Your task to perform on an android device: find photos in the google photos app Image 0: 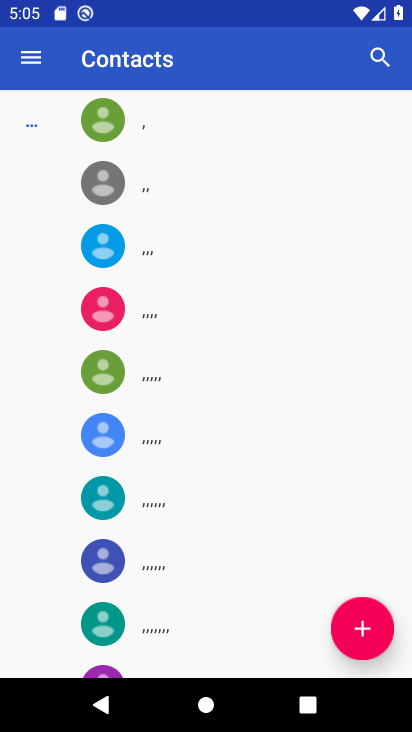
Step 0: press back button
Your task to perform on an android device: find photos in the google photos app Image 1: 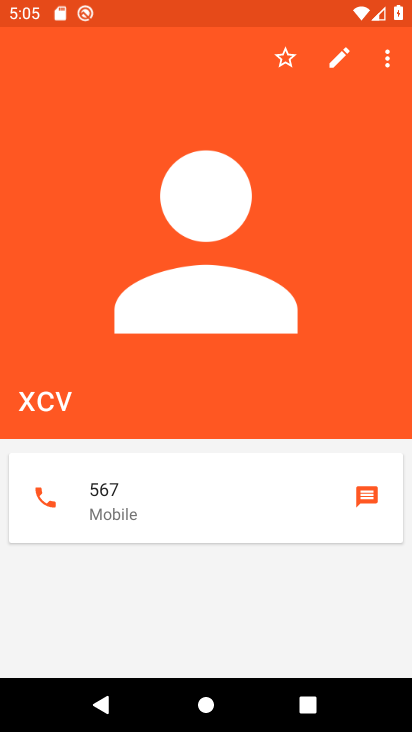
Step 1: press back button
Your task to perform on an android device: find photos in the google photos app Image 2: 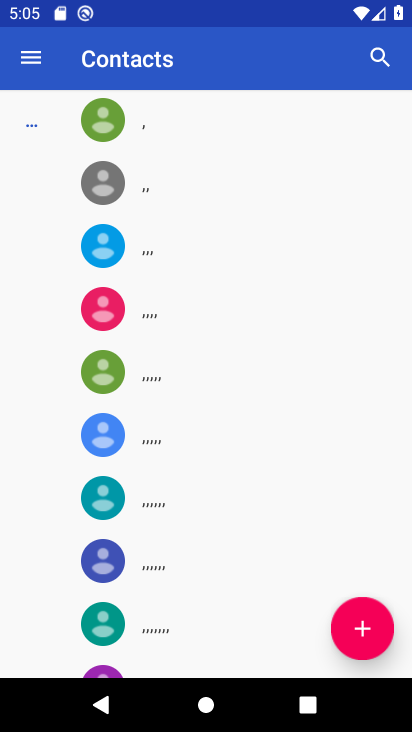
Step 2: press home button
Your task to perform on an android device: find photos in the google photos app Image 3: 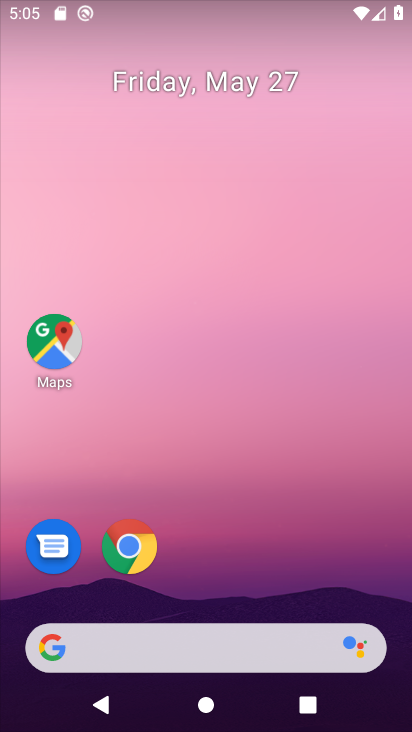
Step 3: drag from (256, 547) to (230, 72)
Your task to perform on an android device: find photos in the google photos app Image 4: 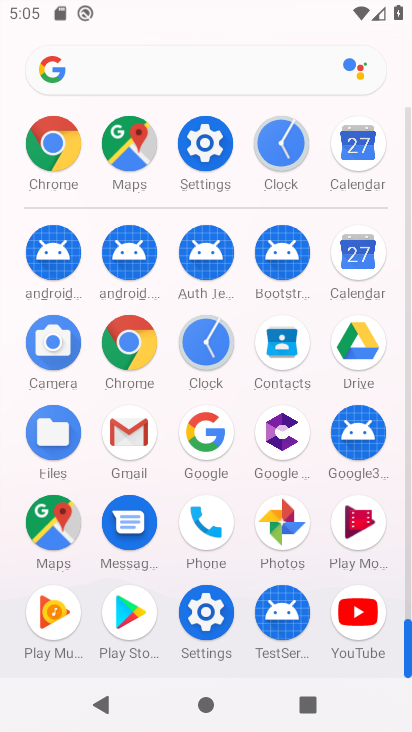
Step 4: drag from (14, 508) to (26, 220)
Your task to perform on an android device: find photos in the google photos app Image 5: 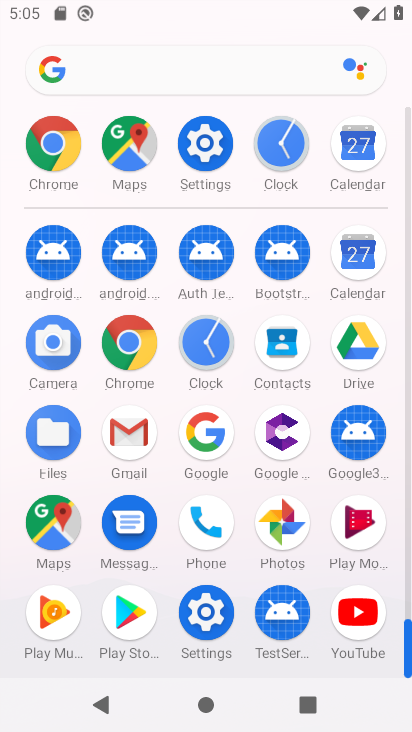
Step 5: click (276, 513)
Your task to perform on an android device: find photos in the google photos app Image 6: 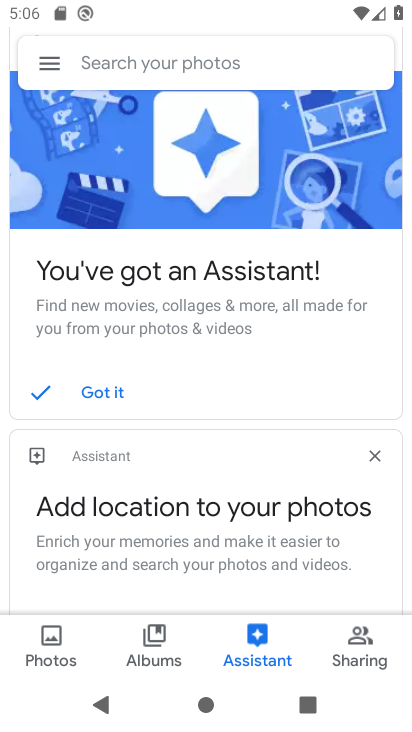
Step 6: click (38, 657)
Your task to perform on an android device: find photos in the google photos app Image 7: 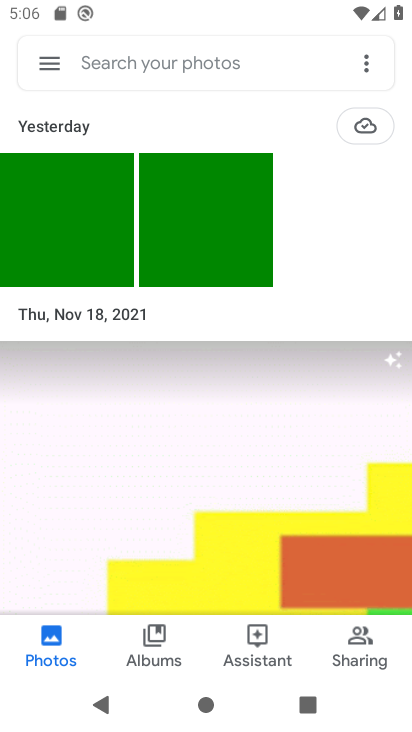
Step 7: task complete